Your task to perform on an android device: Open my contact list Image 0: 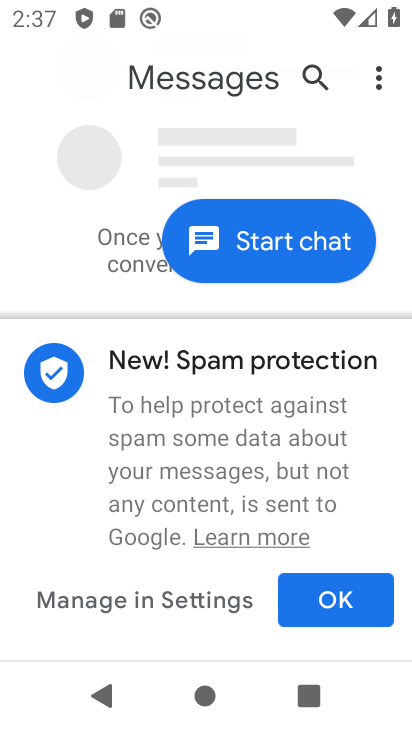
Step 0: press home button
Your task to perform on an android device: Open my contact list Image 1: 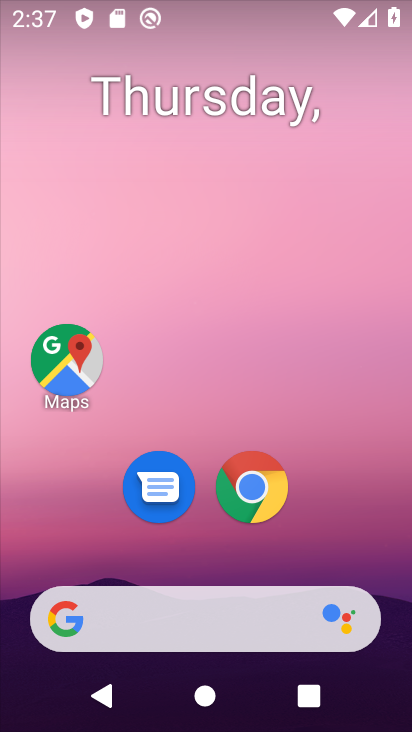
Step 1: drag from (317, 554) to (290, 93)
Your task to perform on an android device: Open my contact list Image 2: 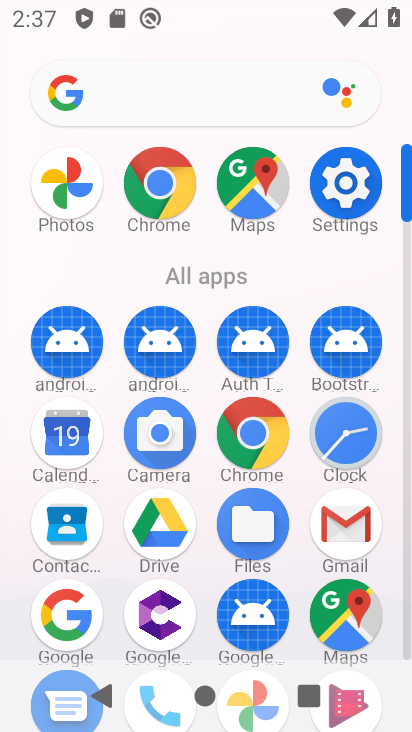
Step 2: drag from (384, 594) to (315, 330)
Your task to perform on an android device: Open my contact list Image 3: 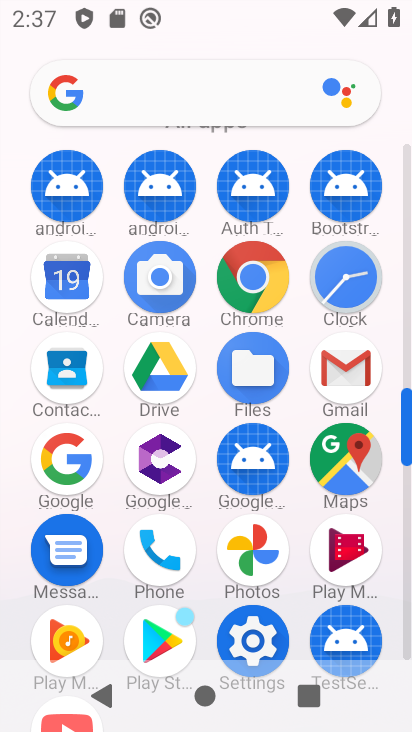
Step 3: click (58, 367)
Your task to perform on an android device: Open my contact list Image 4: 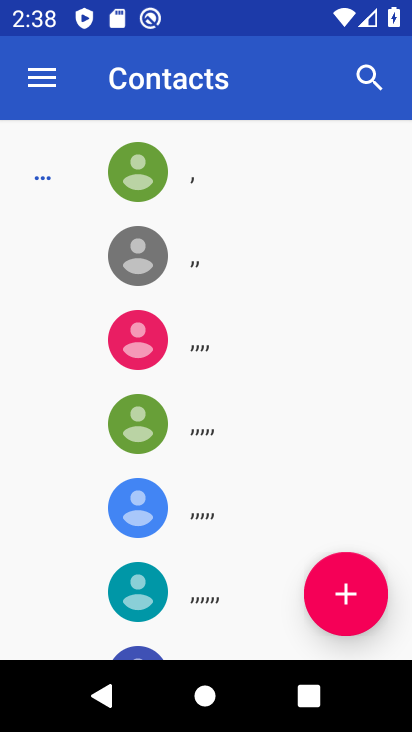
Step 4: task complete